Your task to perform on an android device: turn vacation reply on in the gmail app Image 0: 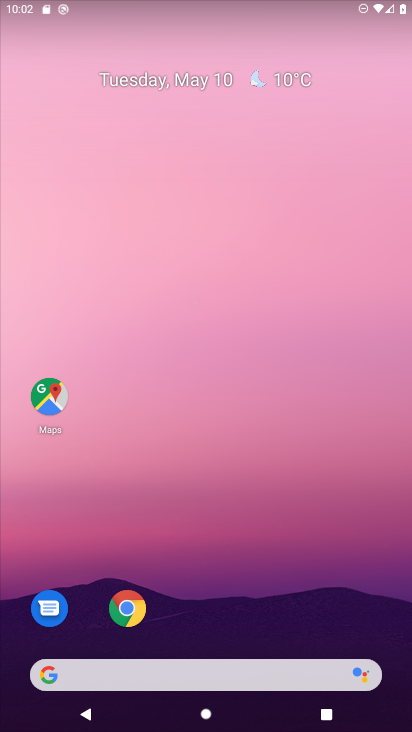
Step 0: drag from (341, 633) to (362, 58)
Your task to perform on an android device: turn vacation reply on in the gmail app Image 1: 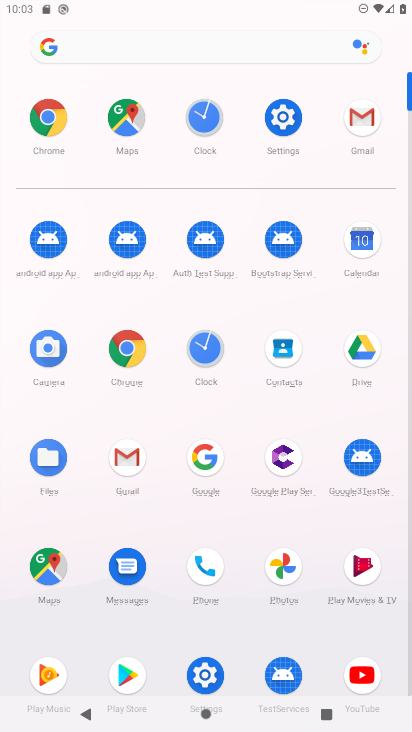
Step 1: click (124, 454)
Your task to perform on an android device: turn vacation reply on in the gmail app Image 2: 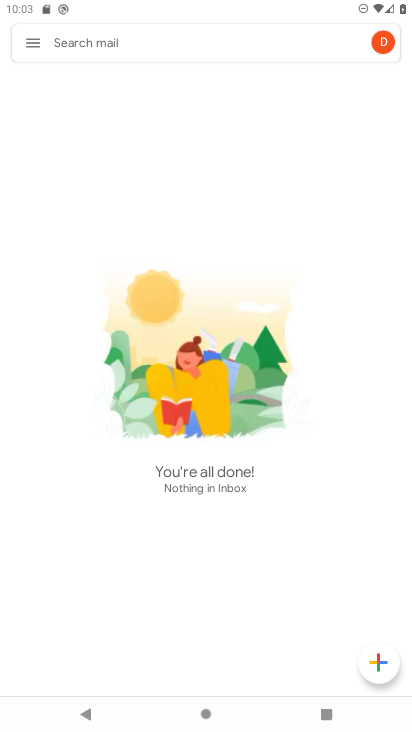
Step 2: click (39, 39)
Your task to perform on an android device: turn vacation reply on in the gmail app Image 3: 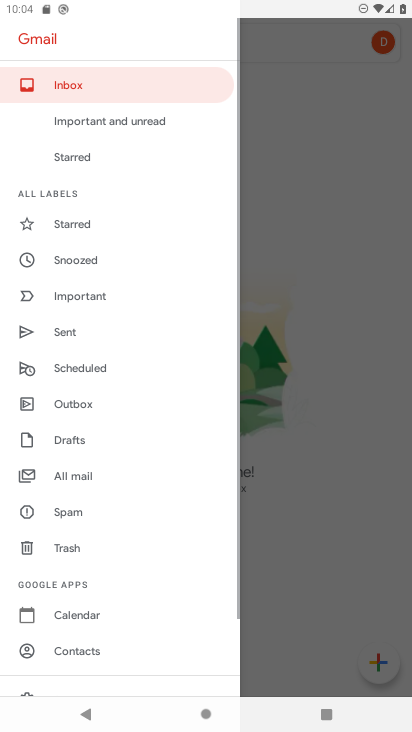
Step 3: drag from (107, 635) to (138, 142)
Your task to perform on an android device: turn vacation reply on in the gmail app Image 4: 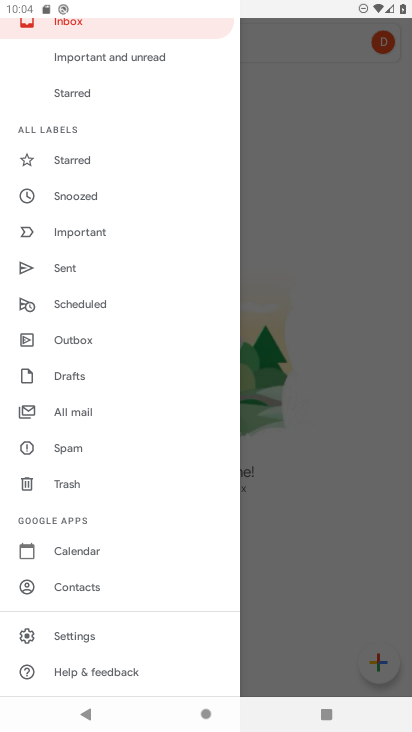
Step 4: click (82, 639)
Your task to perform on an android device: turn vacation reply on in the gmail app Image 5: 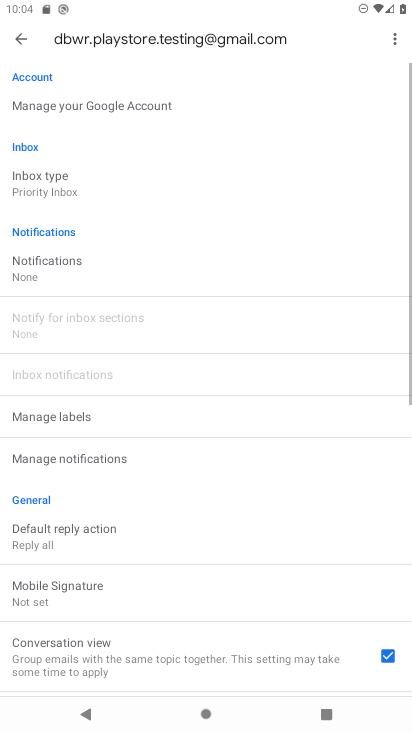
Step 5: drag from (86, 638) to (167, 194)
Your task to perform on an android device: turn vacation reply on in the gmail app Image 6: 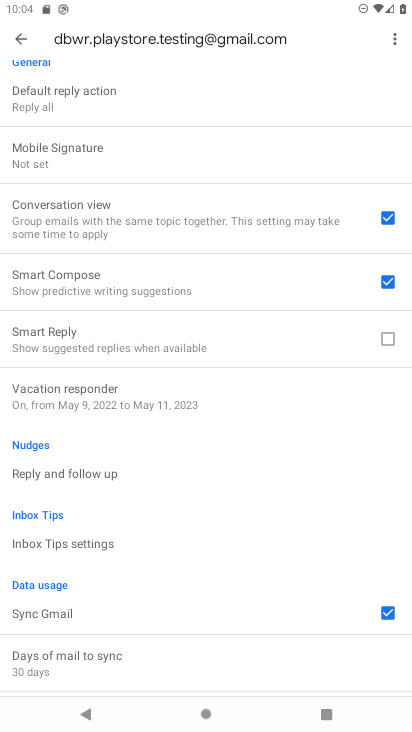
Step 6: click (138, 404)
Your task to perform on an android device: turn vacation reply on in the gmail app Image 7: 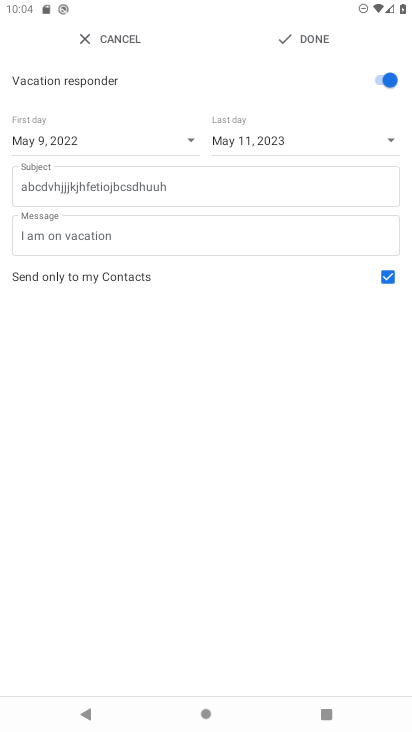
Step 7: task complete